Your task to perform on an android device: change the clock display to analog Image 0: 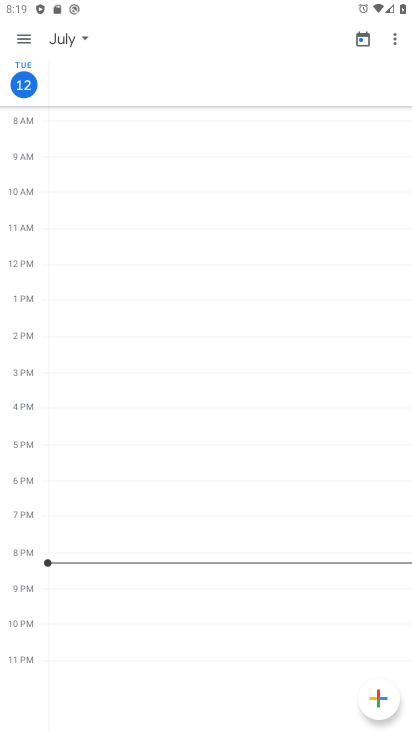
Step 0: press home button
Your task to perform on an android device: change the clock display to analog Image 1: 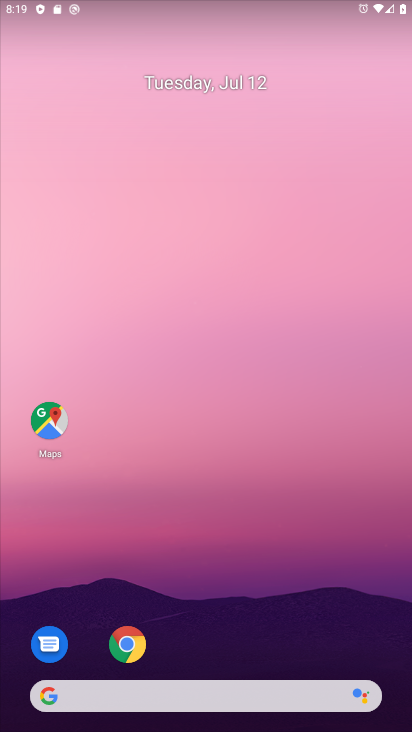
Step 1: drag from (7, 711) to (285, 33)
Your task to perform on an android device: change the clock display to analog Image 2: 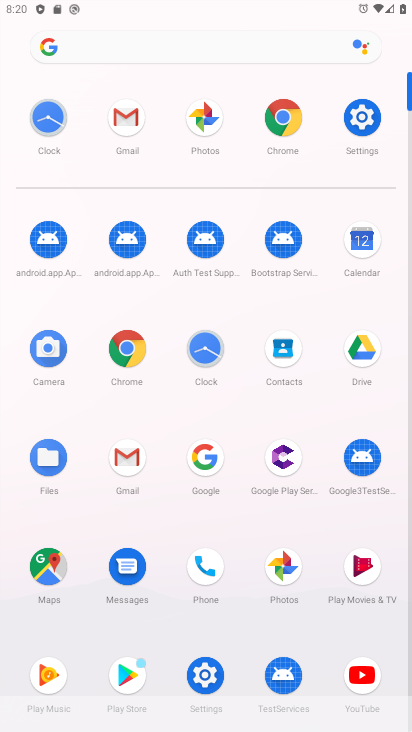
Step 2: click (195, 345)
Your task to perform on an android device: change the clock display to analog Image 3: 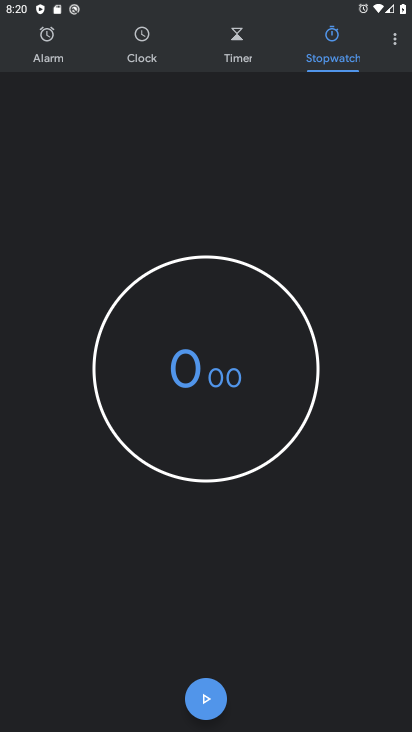
Step 3: click (132, 48)
Your task to perform on an android device: change the clock display to analog Image 4: 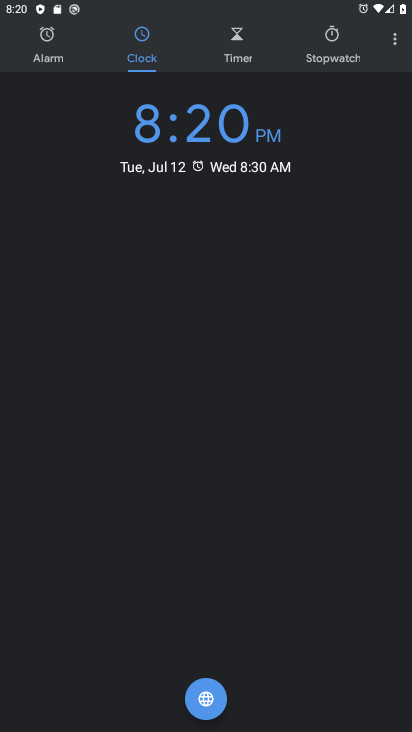
Step 4: click (387, 37)
Your task to perform on an android device: change the clock display to analog Image 5: 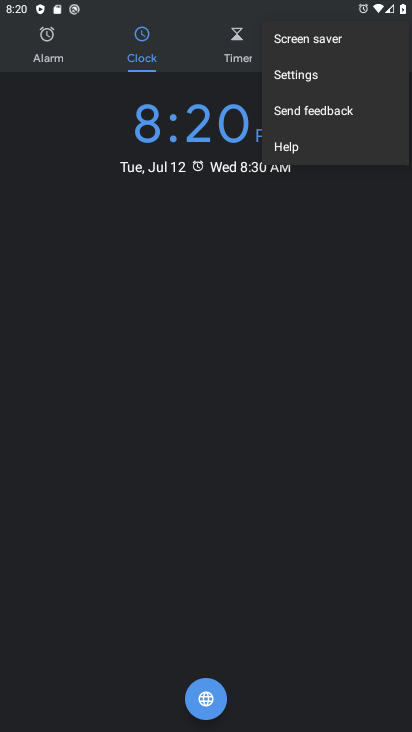
Step 5: click (311, 73)
Your task to perform on an android device: change the clock display to analog Image 6: 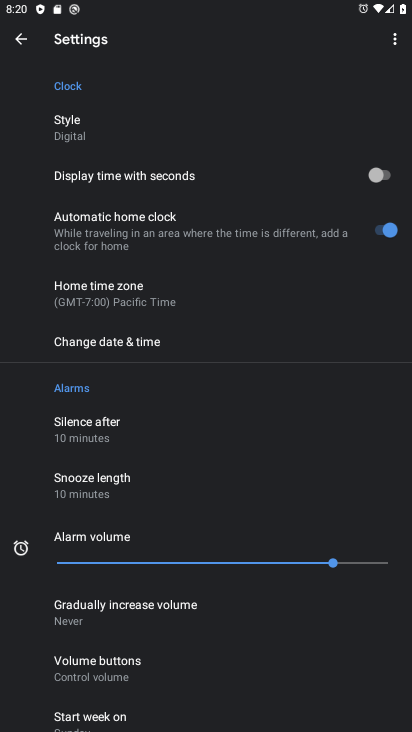
Step 6: click (79, 126)
Your task to perform on an android device: change the clock display to analog Image 7: 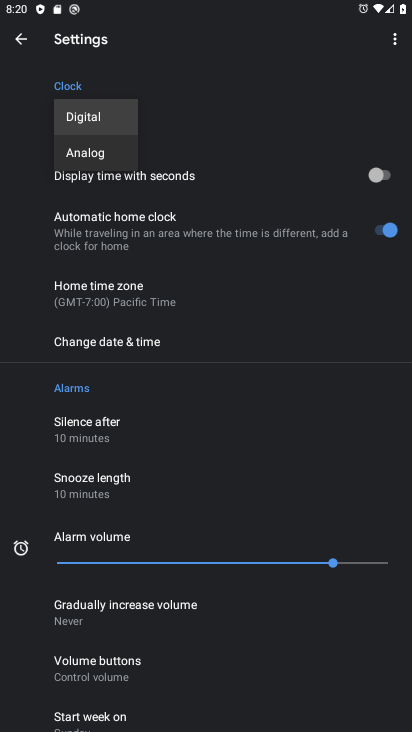
Step 7: click (92, 141)
Your task to perform on an android device: change the clock display to analog Image 8: 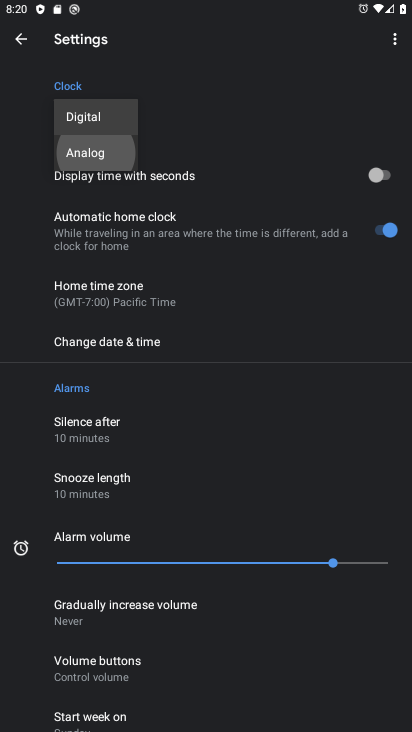
Step 8: click (92, 161)
Your task to perform on an android device: change the clock display to analog Image 9: 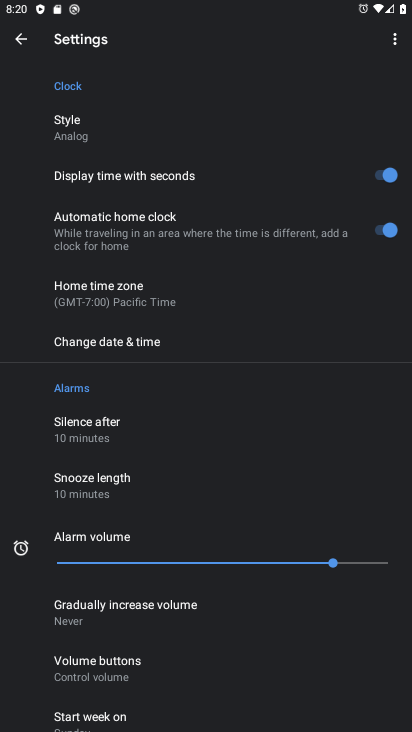
Step 9: task complete